Your task to perform on an android device: delete browsing data in the chrome app Image 0: 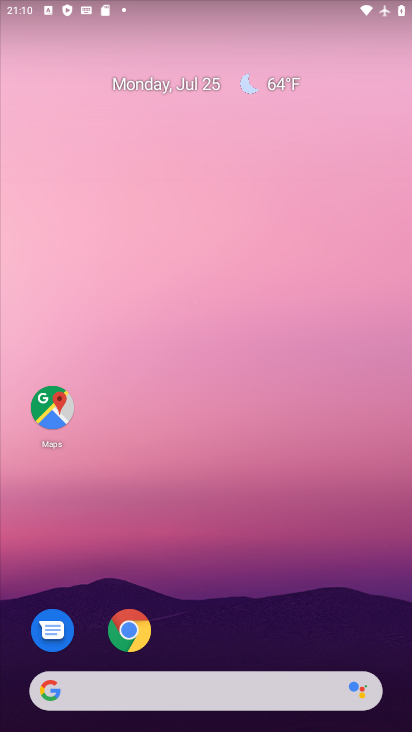
Step 0: click (131, 631)
Your task to perform on an android device: delete browsing data in the chrome app Image 1: 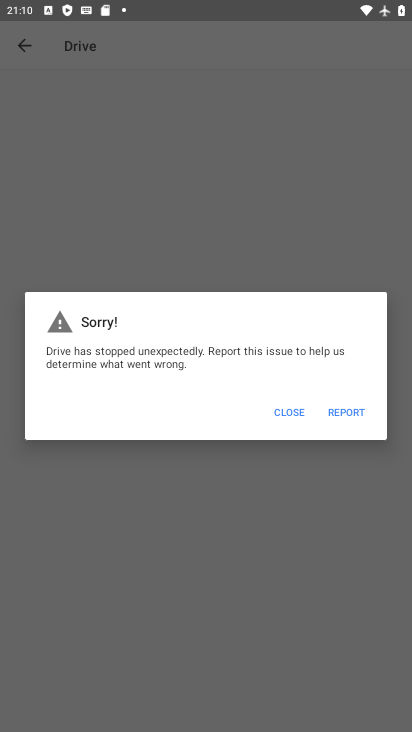
Step 1: press home button
Your task to perform on an android device: delete browsing data in the chrome app Image 2: 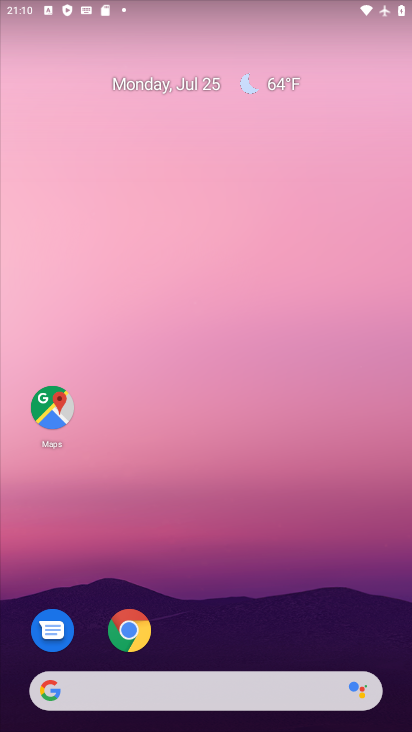
Step 2: click (128, 630)
Your task to perform on an android device: delete browsing data in the chrome app Image 3: 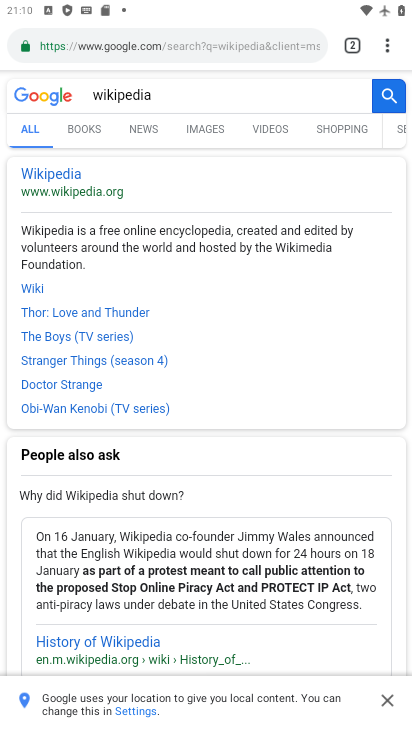
Step 3: click (387, 50)
Your task to perform on an android device: delete browsing data in the chrome app Image 4: 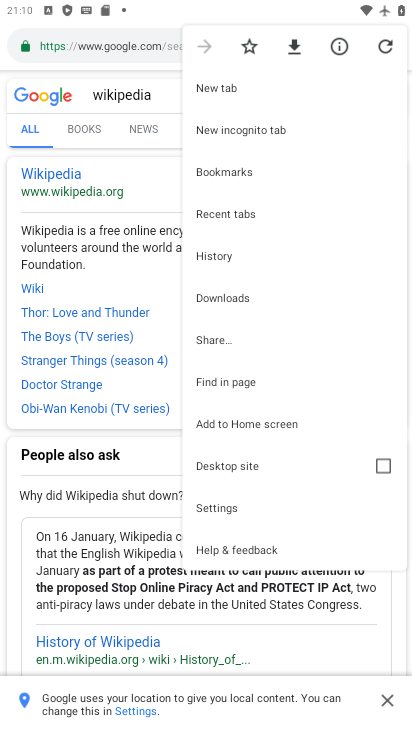
Step 4: click (203, 248)
Your task to perform on an android device: delete browsing data in the chrome app Image 5: 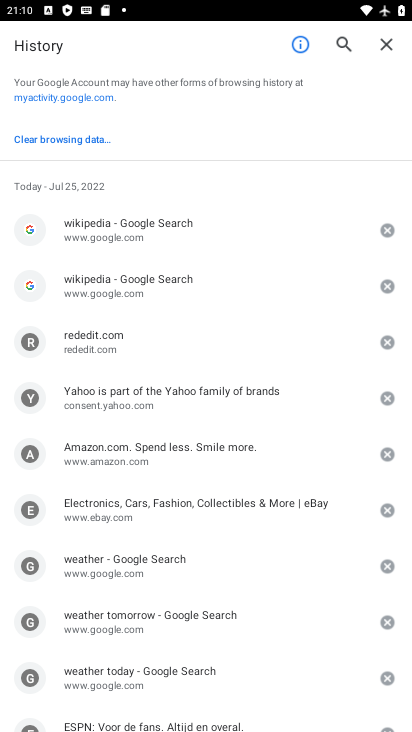
Step 5: click (68, 145)
Your task to perform on an android device: delete browsing data in the chrome app Image 6: 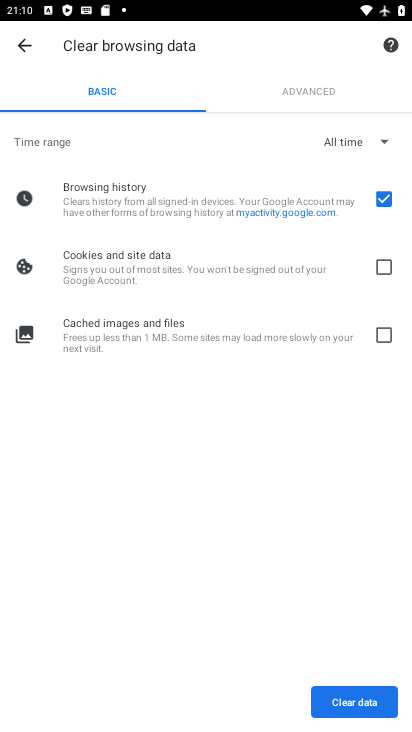
Step 6: click (353, 701)
Your task to perform on an android device: delete browsing data in the chrome app Image 7: 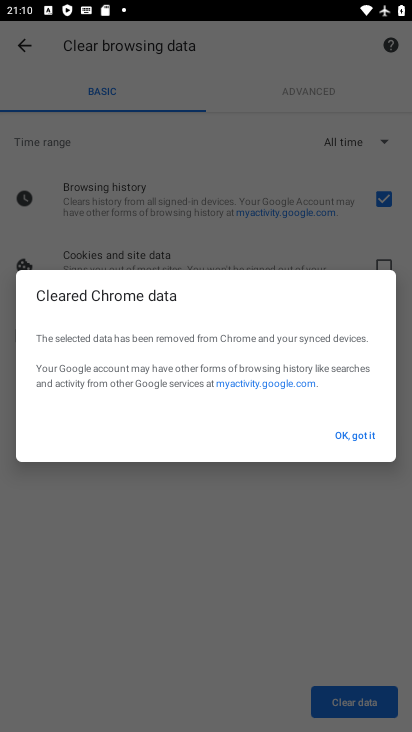
Step 7: click (351, 431)
Your task to perform on an android device: delete browsing data in the chrome app Image 8: 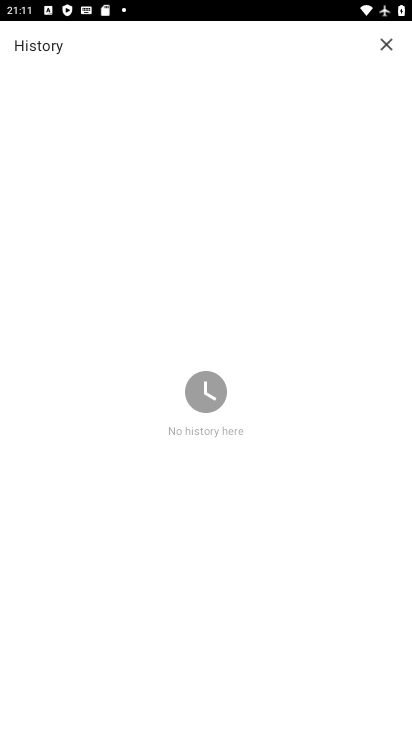
Step 8: task complete